Your task to perform on an android device: turn on bluetooth scan Image 0: 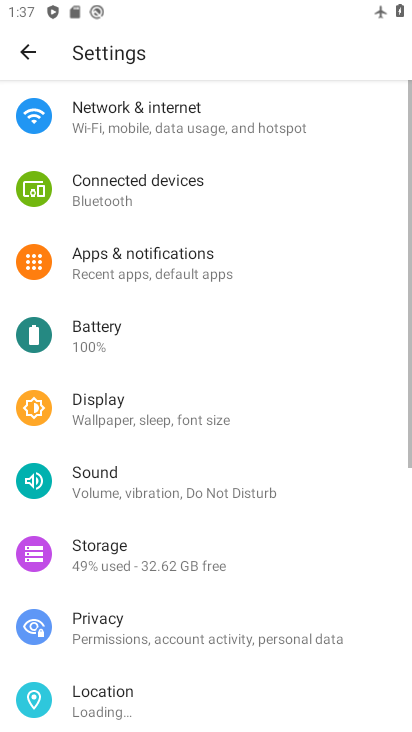
Step 0: press home button
Your task to perform on an android device: turn on bluetooth scan Image 1: 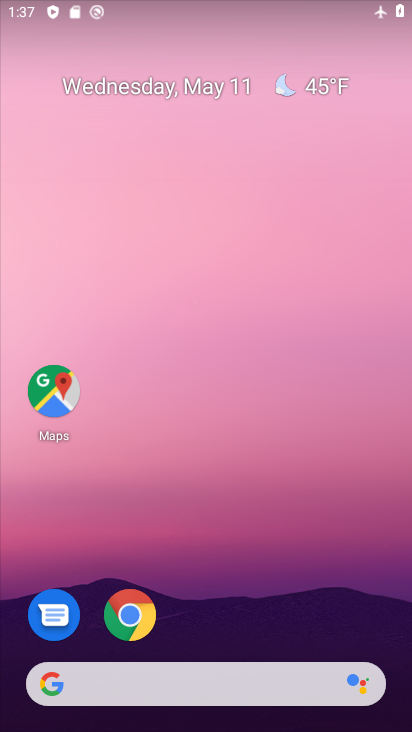
Step 1: drag from (229, 666) to (218, 15)
Your task to perform on an android device: turn on bluetooth scan Image 2: 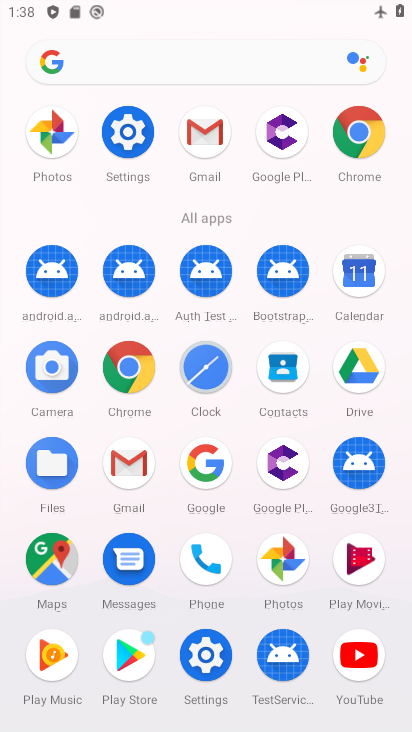
Step 2: click (135, 130)
Your task to perform on an android device: turn on bluetooth scan Image 3: 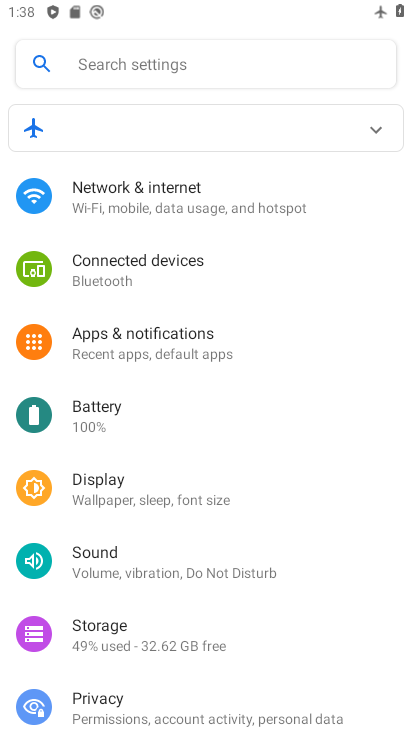
Step 3: drag from (171, 644) to (169, 238)
Your task to perform on an android device: turn on bluetooth scan Image 4: 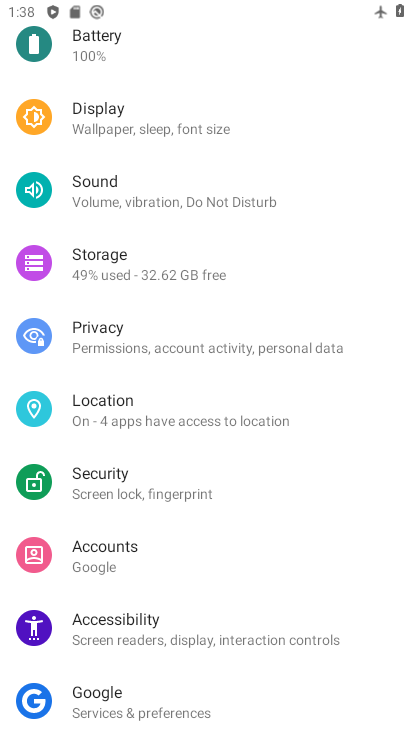
Step 4: click (136, 414)
Your task to perform on an android device: turn on bluetooth scan Image 5: 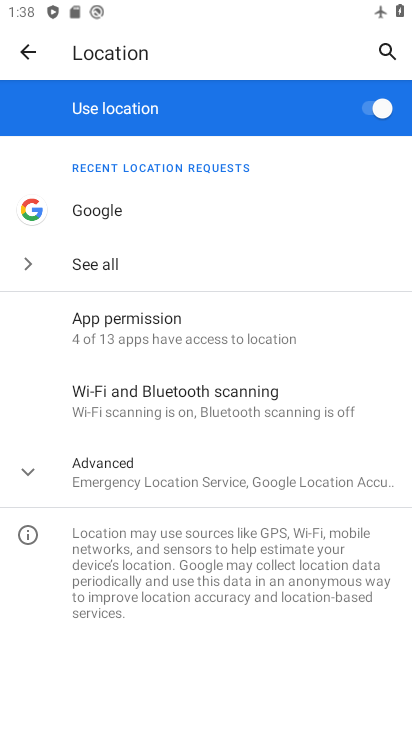
Step 5: click (145, 474)
Your task to perform on an android device: turn on bluetooth scan Image 6: 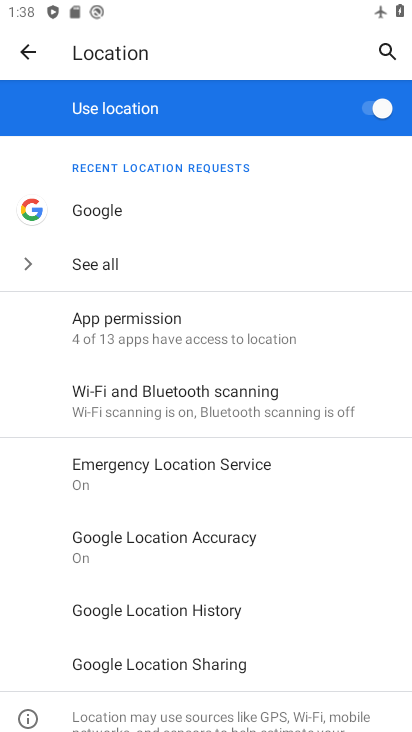
Step 6: click (160, 405)
Your task to perform on an android device: turn on bluetooth scan Image 7: 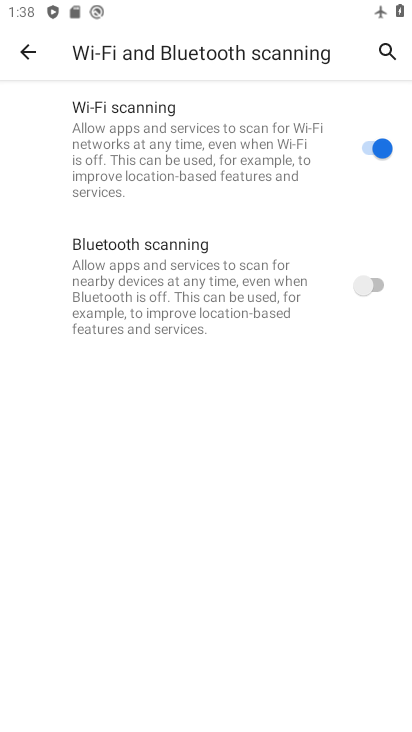
Step 7: click (376, 285)
Your task to perform on an android device: turn on bluetooth scan Image 8: 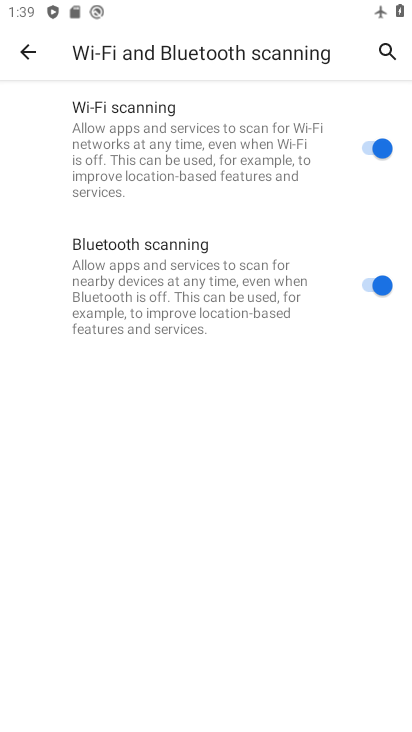
Step 8: task complete